Your task to perform on an android device: toggle sleep mode Image 0: 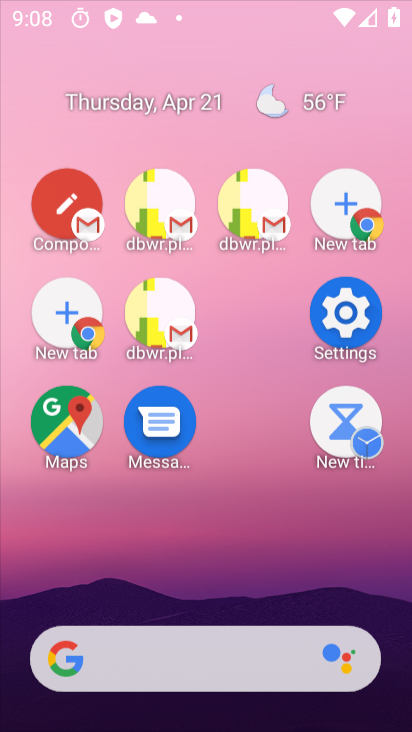
Step 0: click (193, 132)
Your task to perform on an android device: toggle sleep mode Image 1: 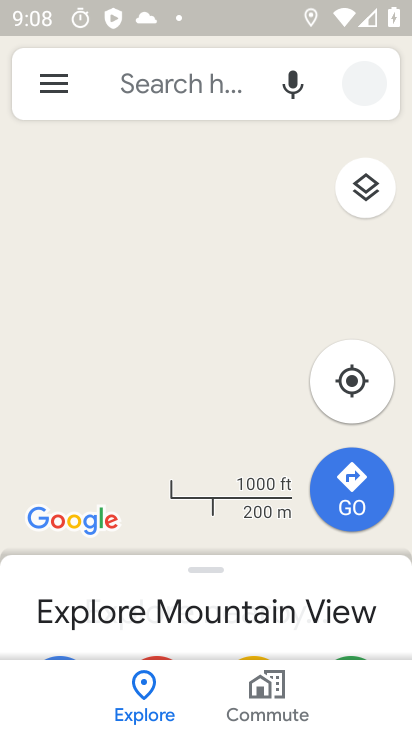
Step 1: press home button
Your task to perform on an android device: toggle sleep mode Image 2: 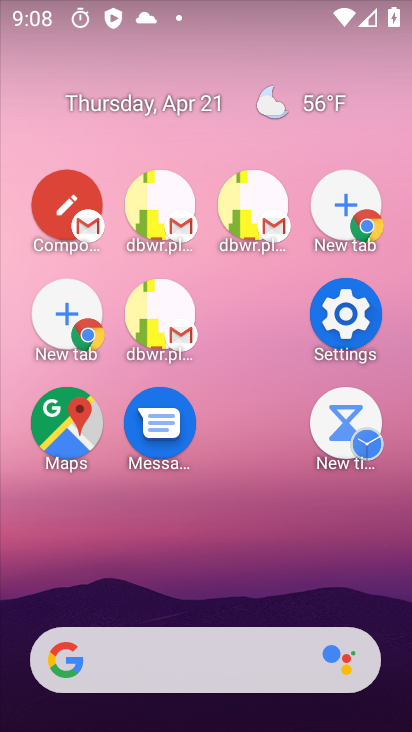
Step 2: drag from (227, 544) to (166, 94)
Your task to perform on an android device: toggle sleep mode Image 3: 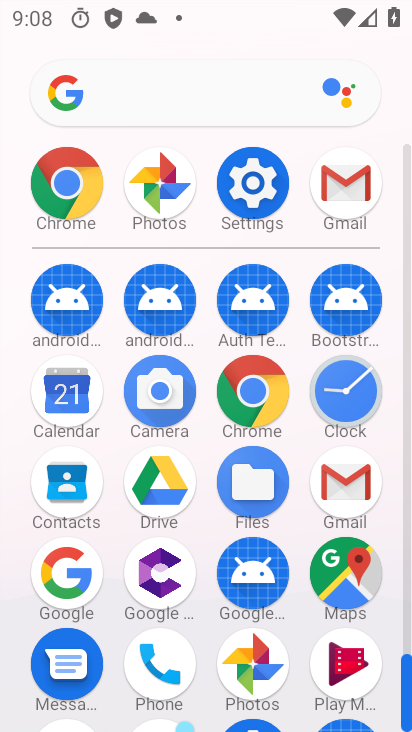
Step 3: click (248, 191)
Your task to perform on an android device: toggle sleep mode Image 4: 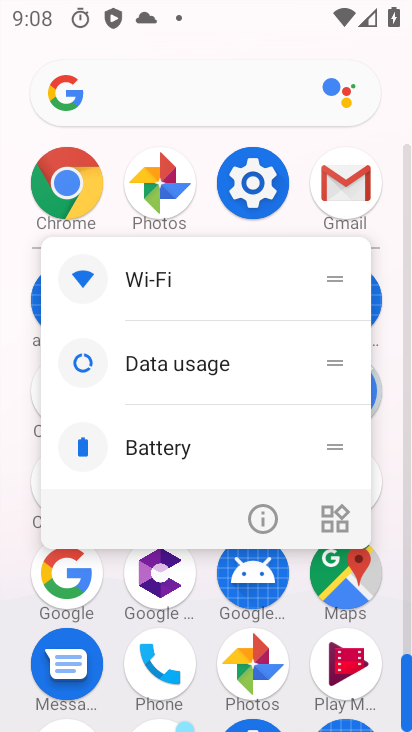
Step 4: click (248, 191)
Your task to perform on an android device: toggle sleep mode Image 5: 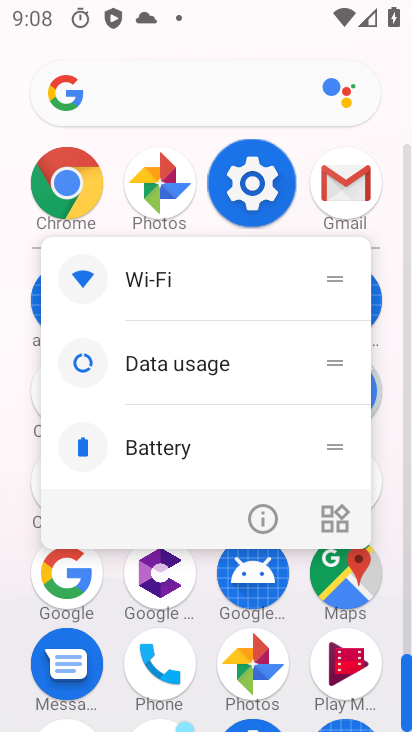
Step 5: click (248, 191)
Your task to perform on an android device: toggle sleep mode Image 6: 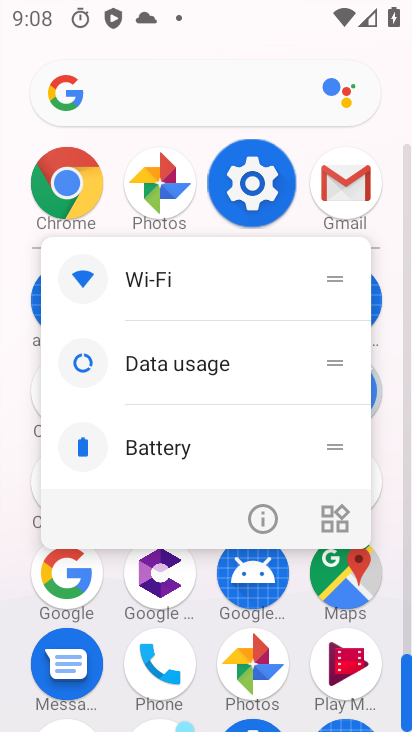
Step 6: click (248, 191)
Your task to perform on an android device: toggle sleep mode Image 7: 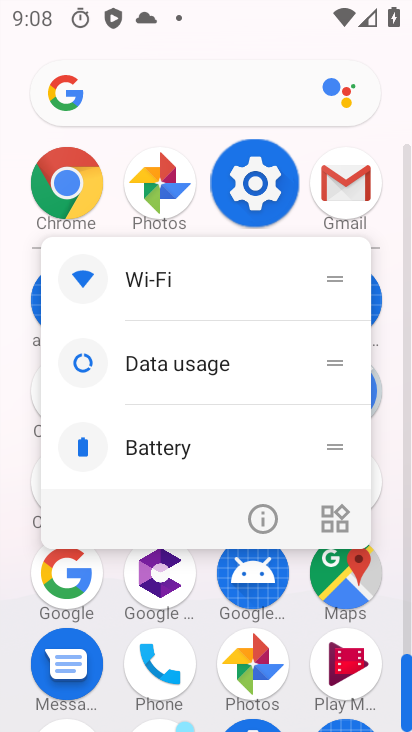
Step 7: click (260, 183)
Your task to perform on an android device: toggle sleep mode Image 8: 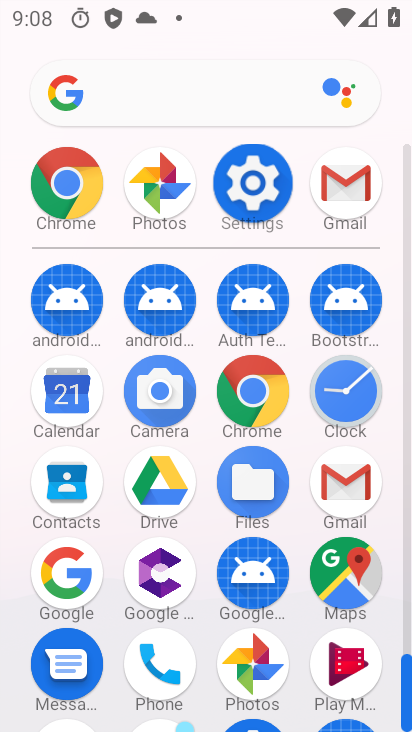
Step 8: click (262, 181)
Your task to perform on an android device: toggle sleep mode Image 9: 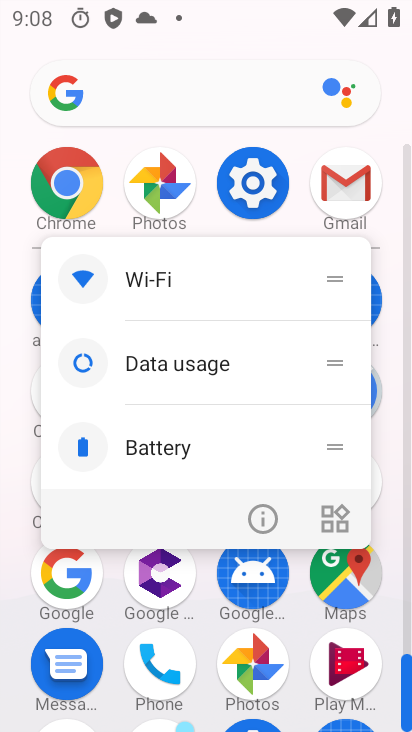
Step 9: click (253, 178)
Your task to perform on an android device: toggle sleep mode Image 10: 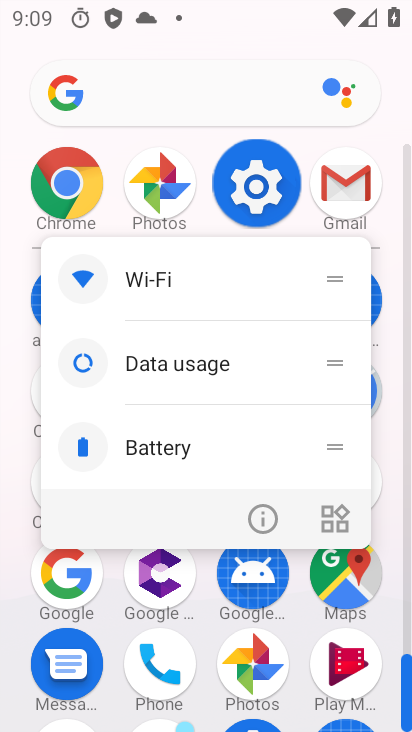
Step 10: click (258, 176)
Your task to perform on an android device: toggle sleep mode Image 11: 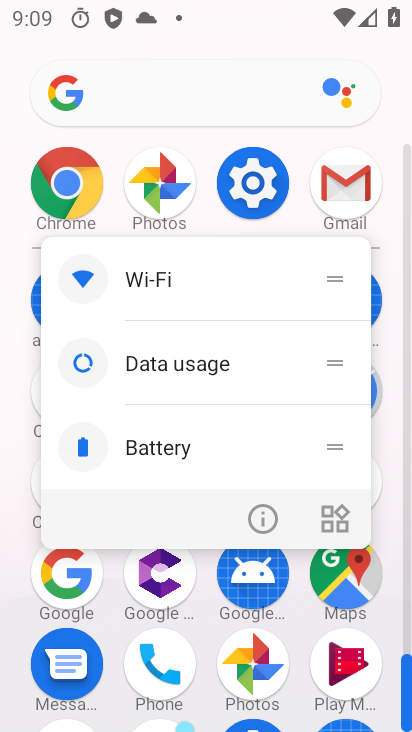
Step 11: task complete